Your task to perform on an android device: Go to Maps Image 0: 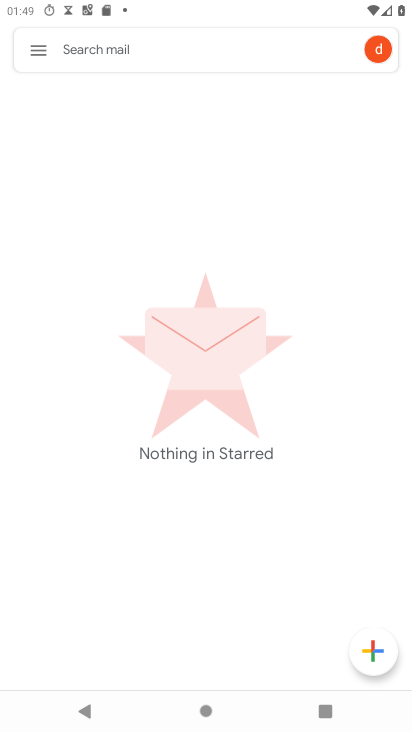
Step 0: press home button
Your task to perform on an android device: Go to Maps Image 1: 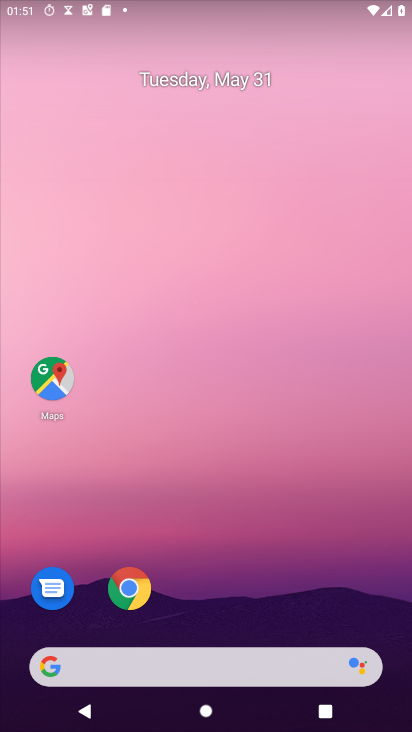
Step 1: drag from (220, 650) to (232, 39)
Your task to perform on an android device: Go to Maps Image 2: 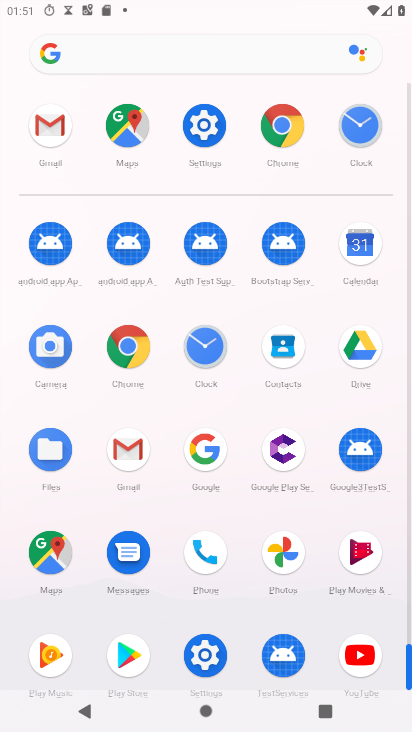
Step 2: click (58, 556)
Your task to perform on an android device: Go to Maps Image 3: 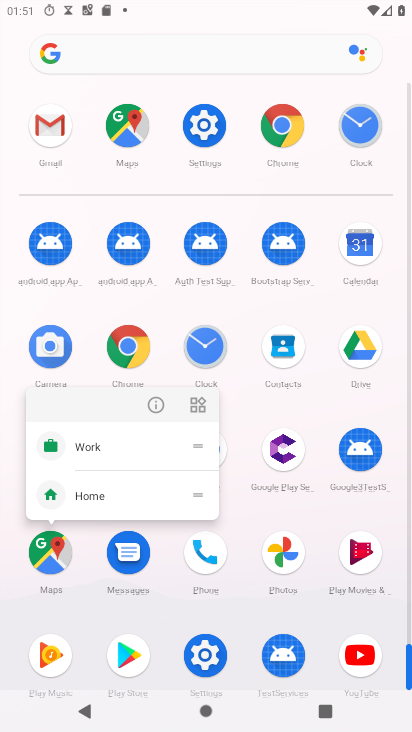
Step 3: click (40, 558)
Your task to perform on an android device: Go to Maps Image 4: 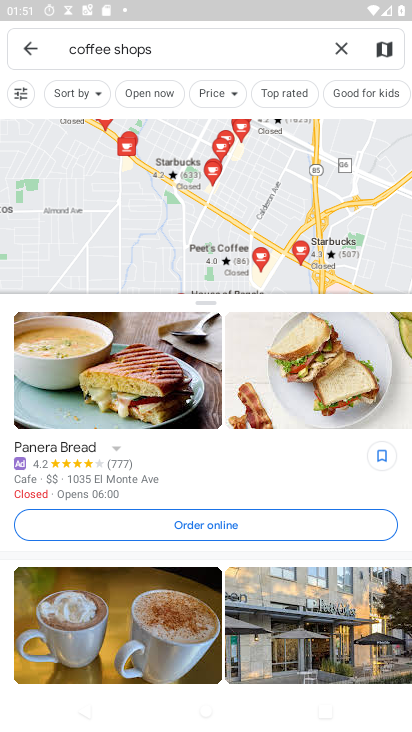
Step 4: task complete